Your task to perform on an android device: clear all cookies in the chrome app Image 0: 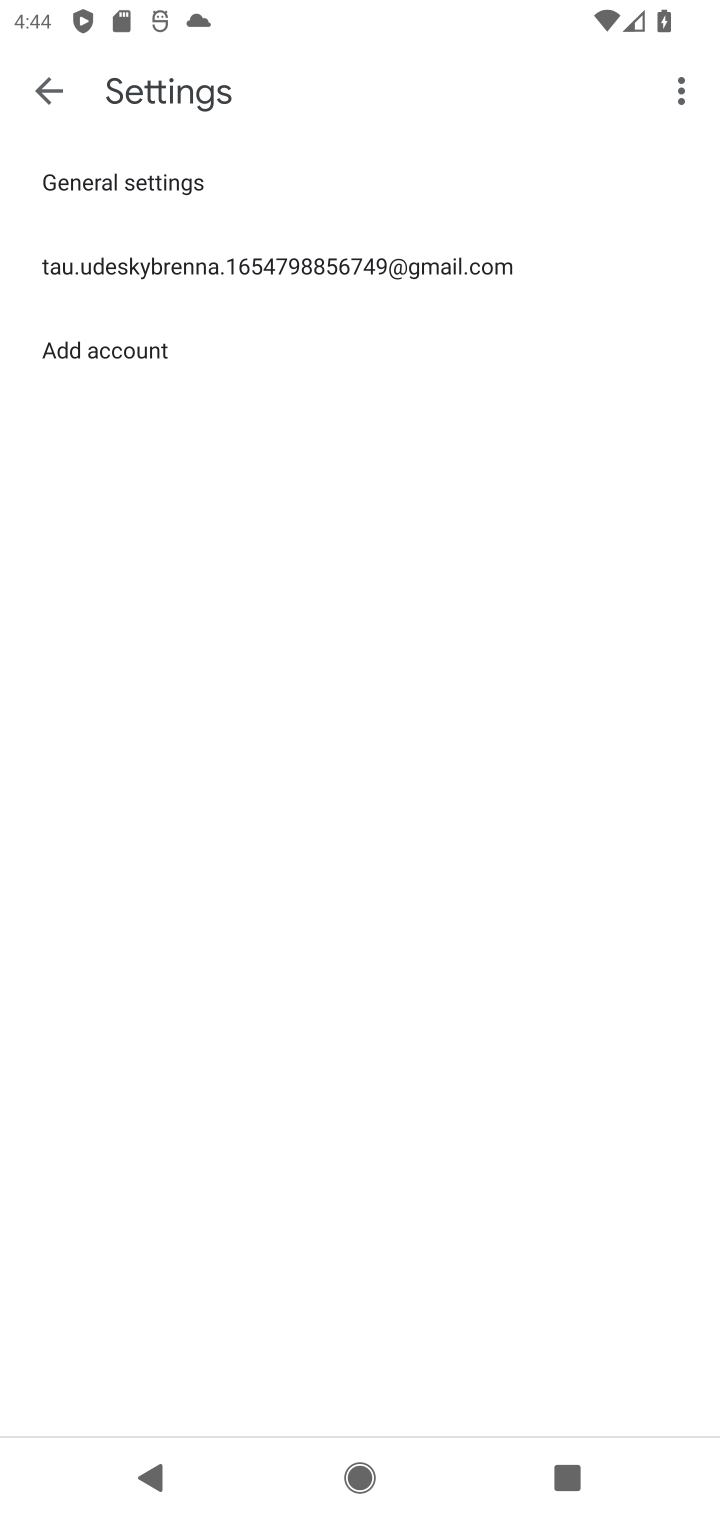
Step 0: press home button
Your task to perform on an android device: clear all cookies in the chrome app Image 1: 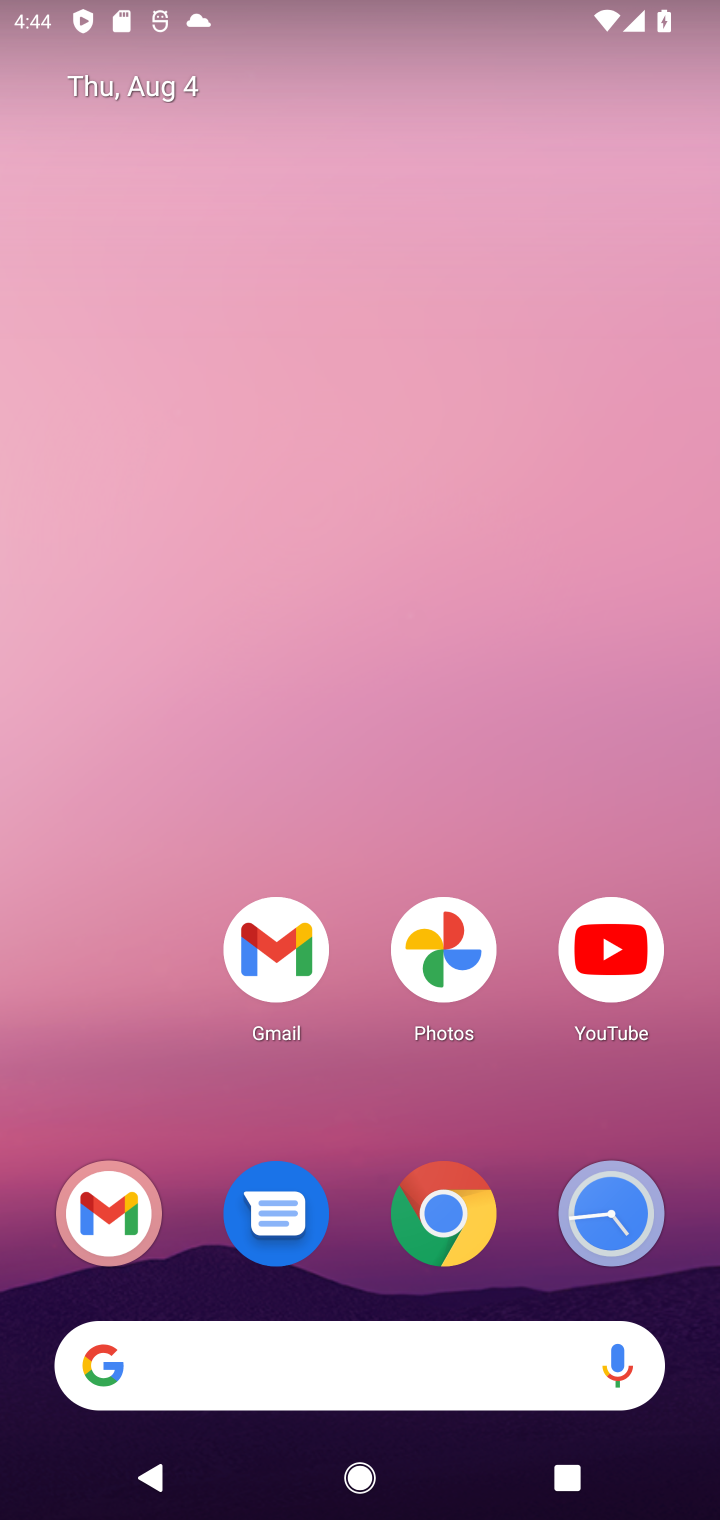
Step 1: drag from (162, 1086) to (129, 279)
Your task to perform on an android device: clear all cookies in the chrome app Image 2: 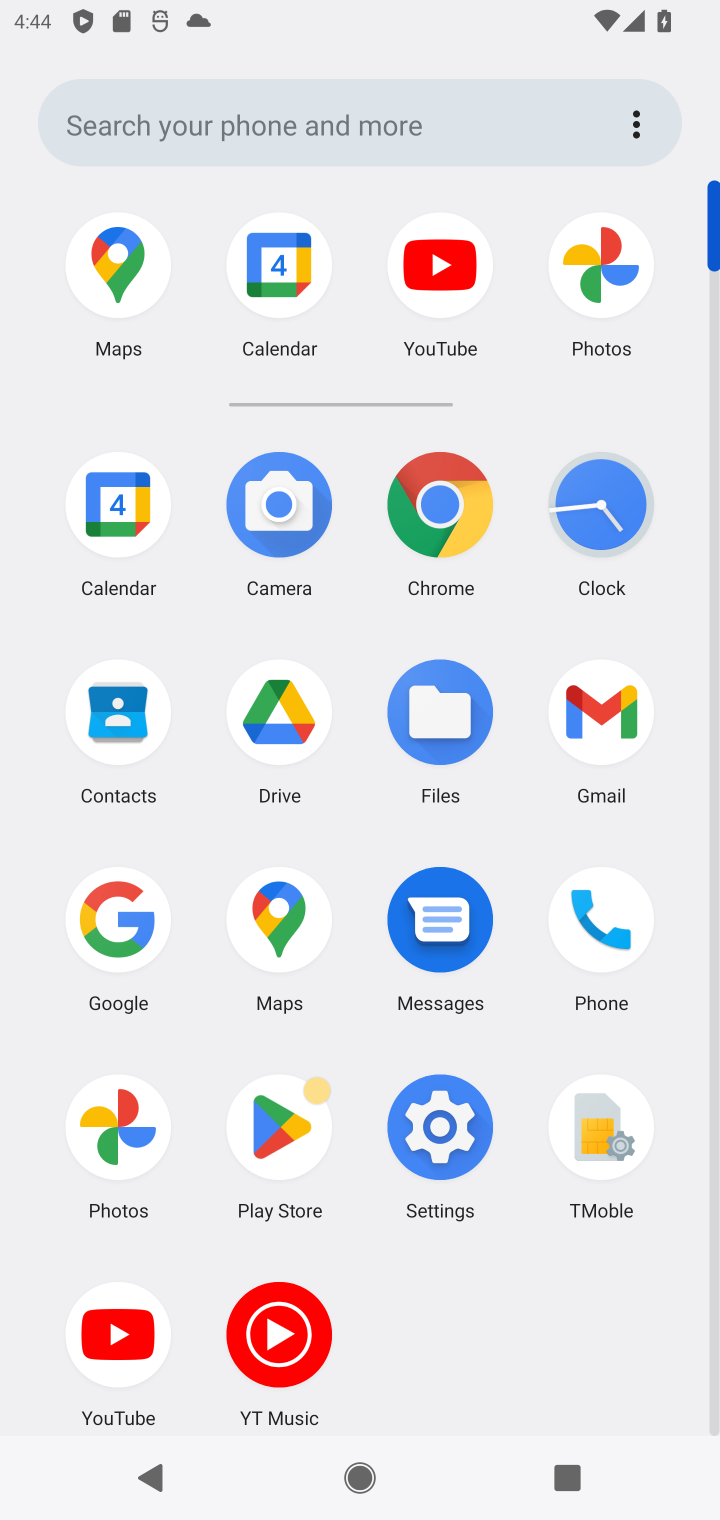
Step 2: click (444, 520)
Your task to perform on an android device: clear all cookies in the chrome app Image 3: 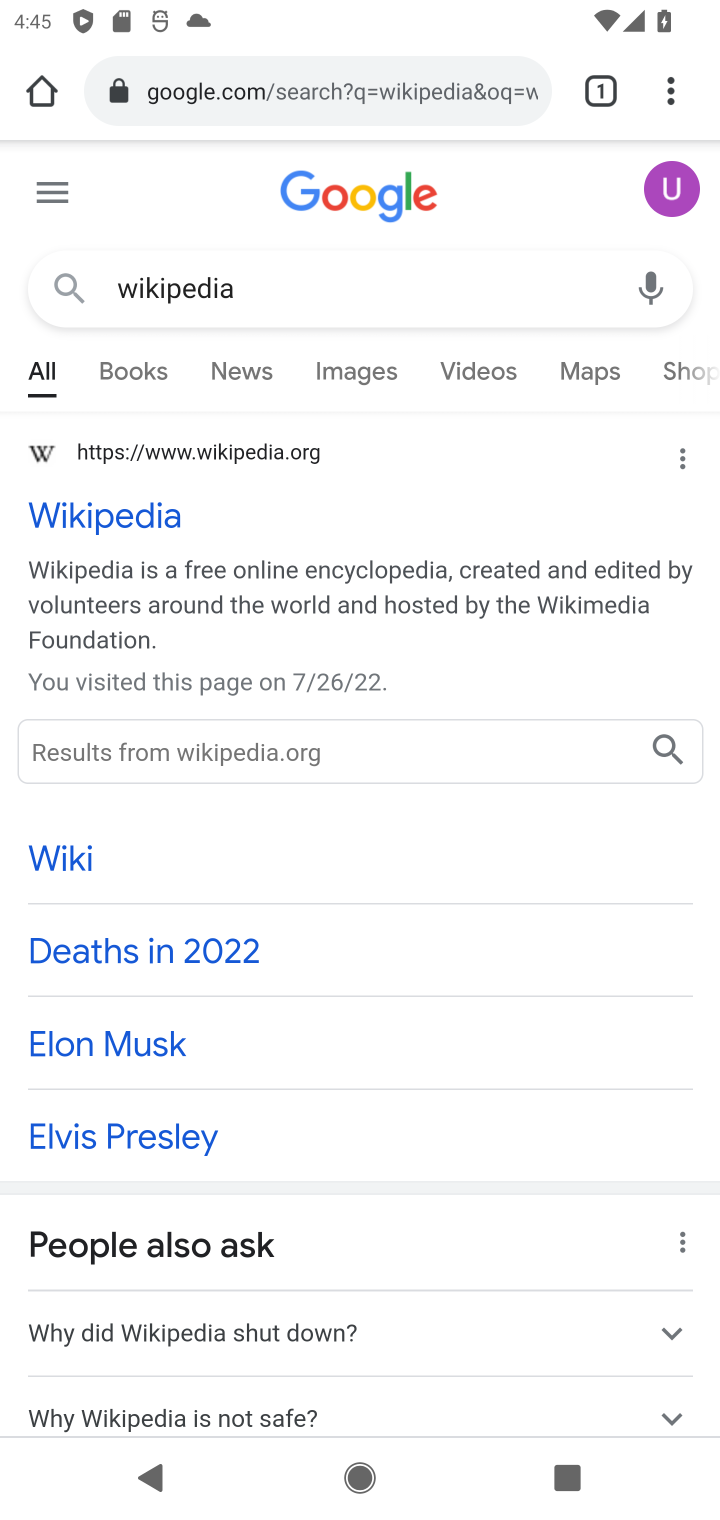
Step 3: click (672, 96)
Your task to perform on an android device: clear all cookies in the chrome app Image 4: 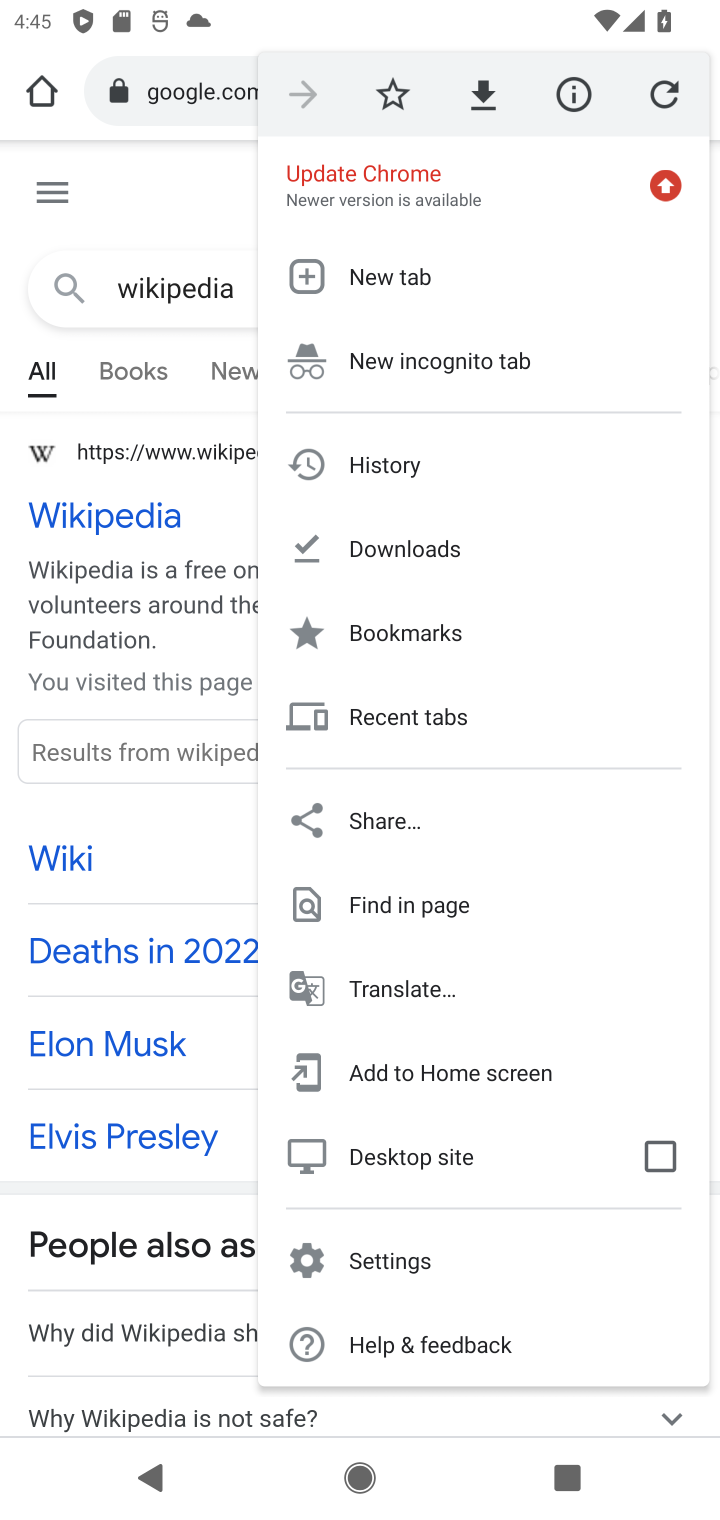
Step 4: click (439, 1264)
Your task to perform on an android device: clear all cookies in the chrome app Image 5: 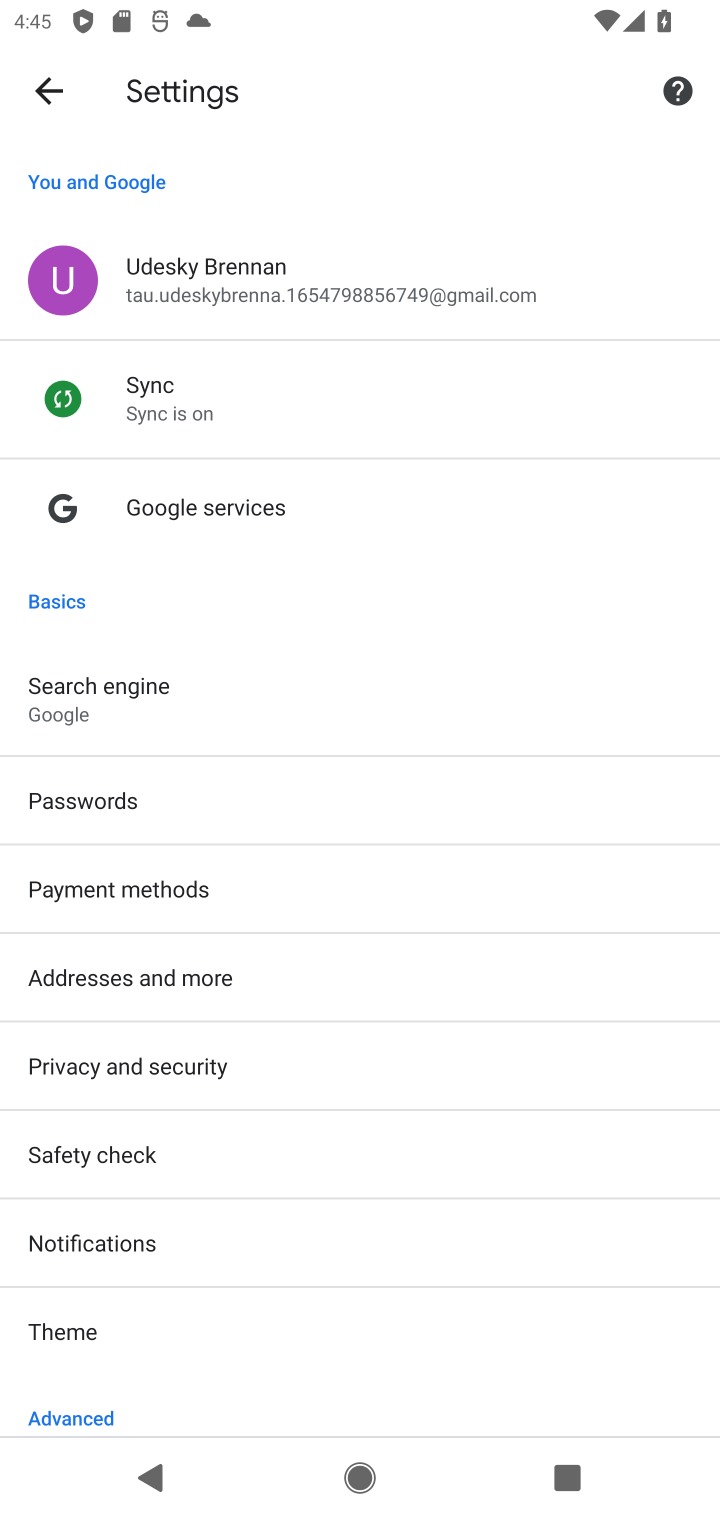
Step 5: drag from (417, 1143) to (460, 779)
Your task to perform on an android device: clear all cookies in the chrome app Image 6: 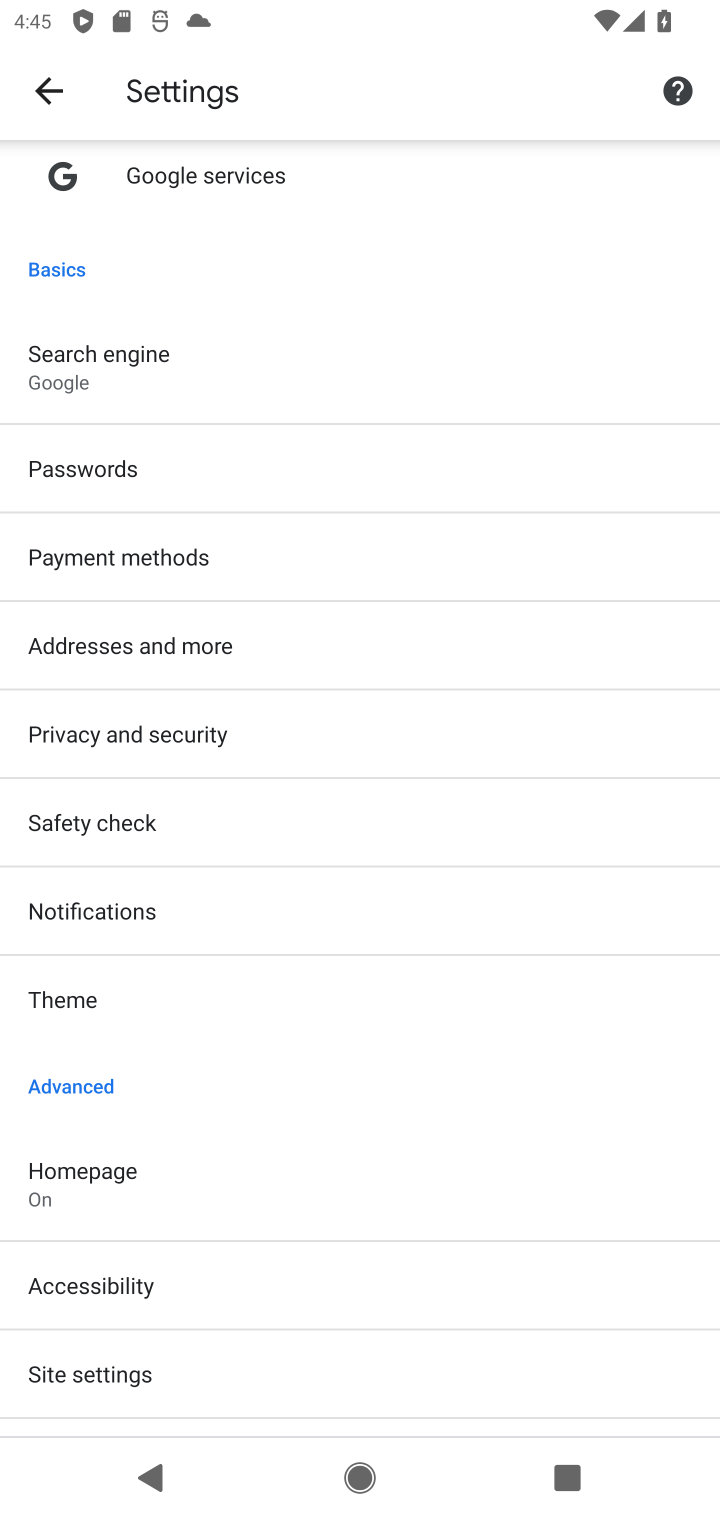
Step 6: drag from (507, 1151) to (516, 750)
Your task to perform on an android device: clear all cookies in the chrome app Image 7: 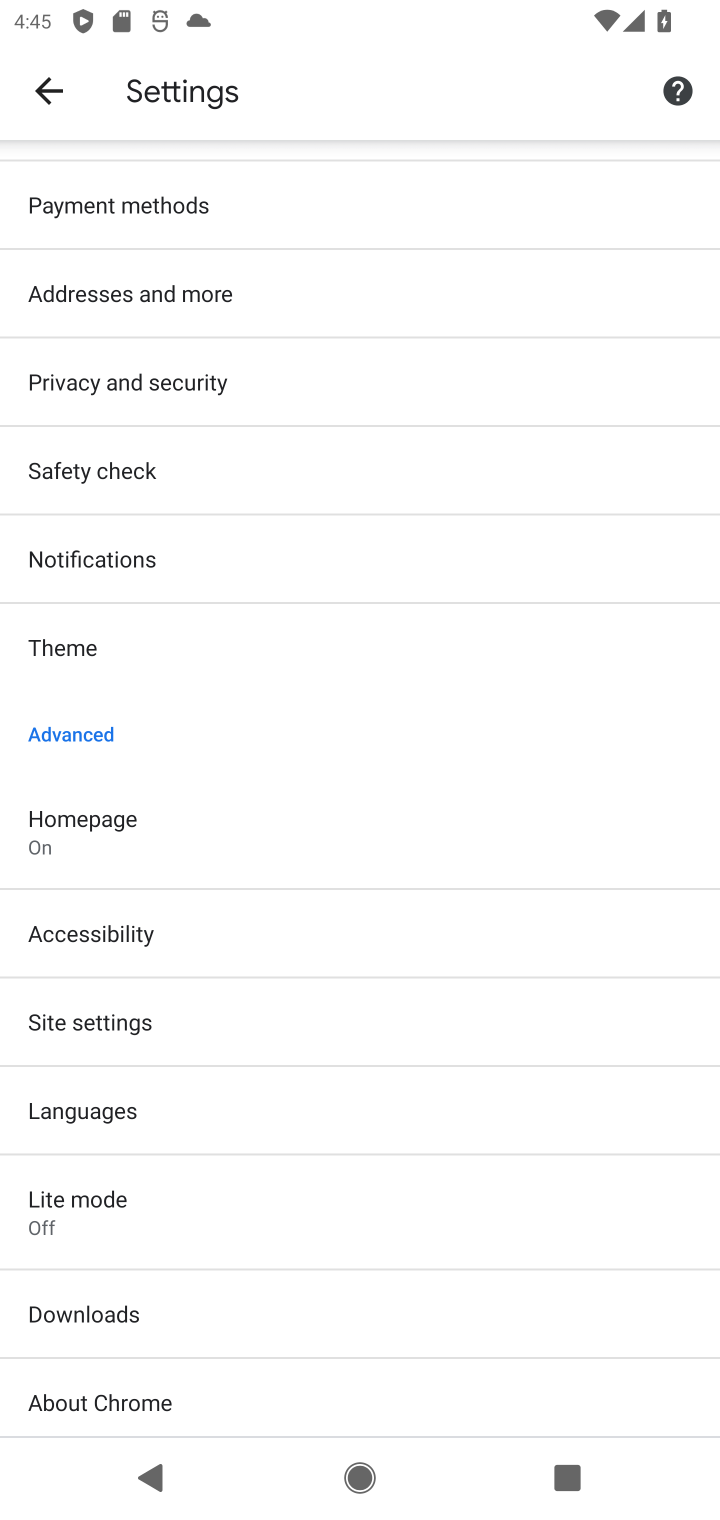
Step 7: drag from (544, 979) to (558, 671)
Your task to perform on an android device: clear all cookies in the chrome app Image 8: 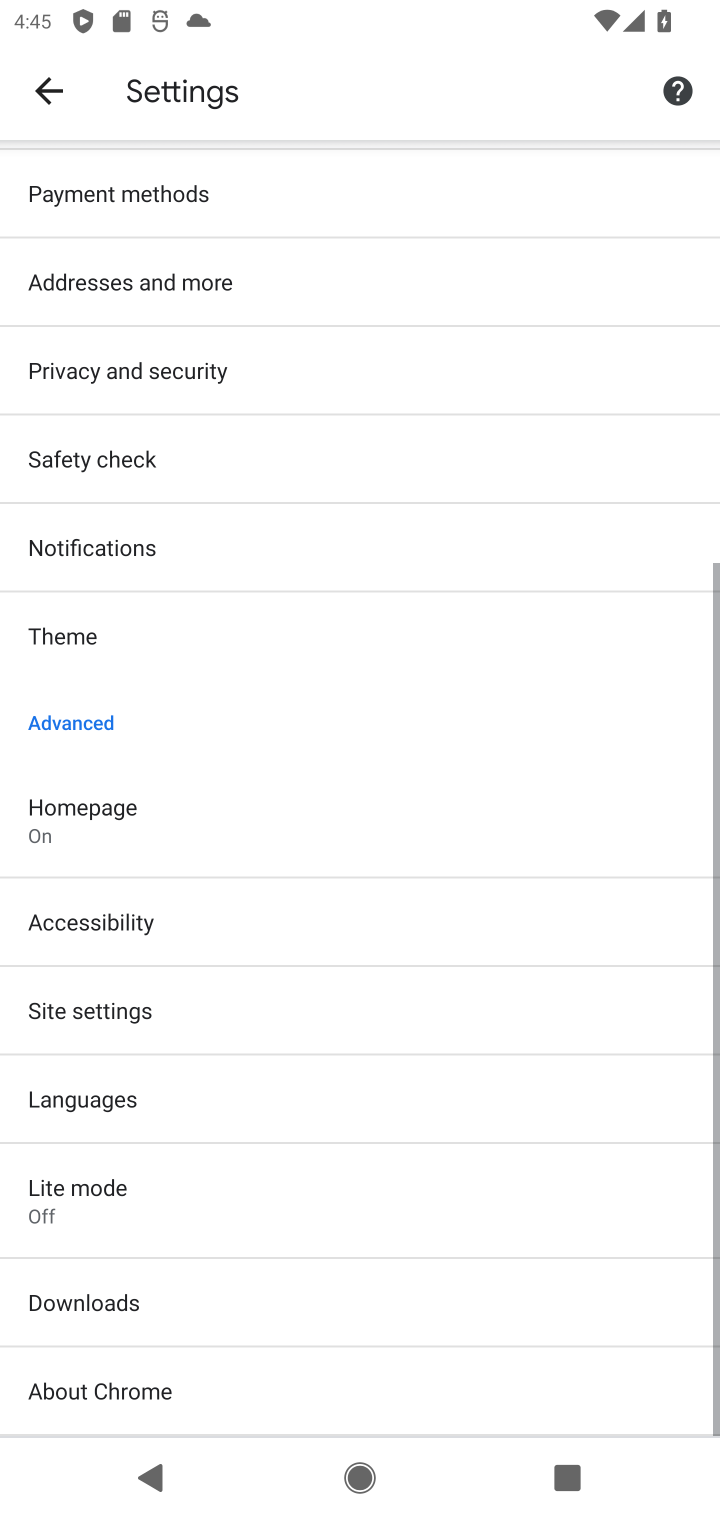
Step 8: drag from (528, 692) to (534, 898)
Your task to perform on an android device: clear all cookies in the chrome app Image 9: 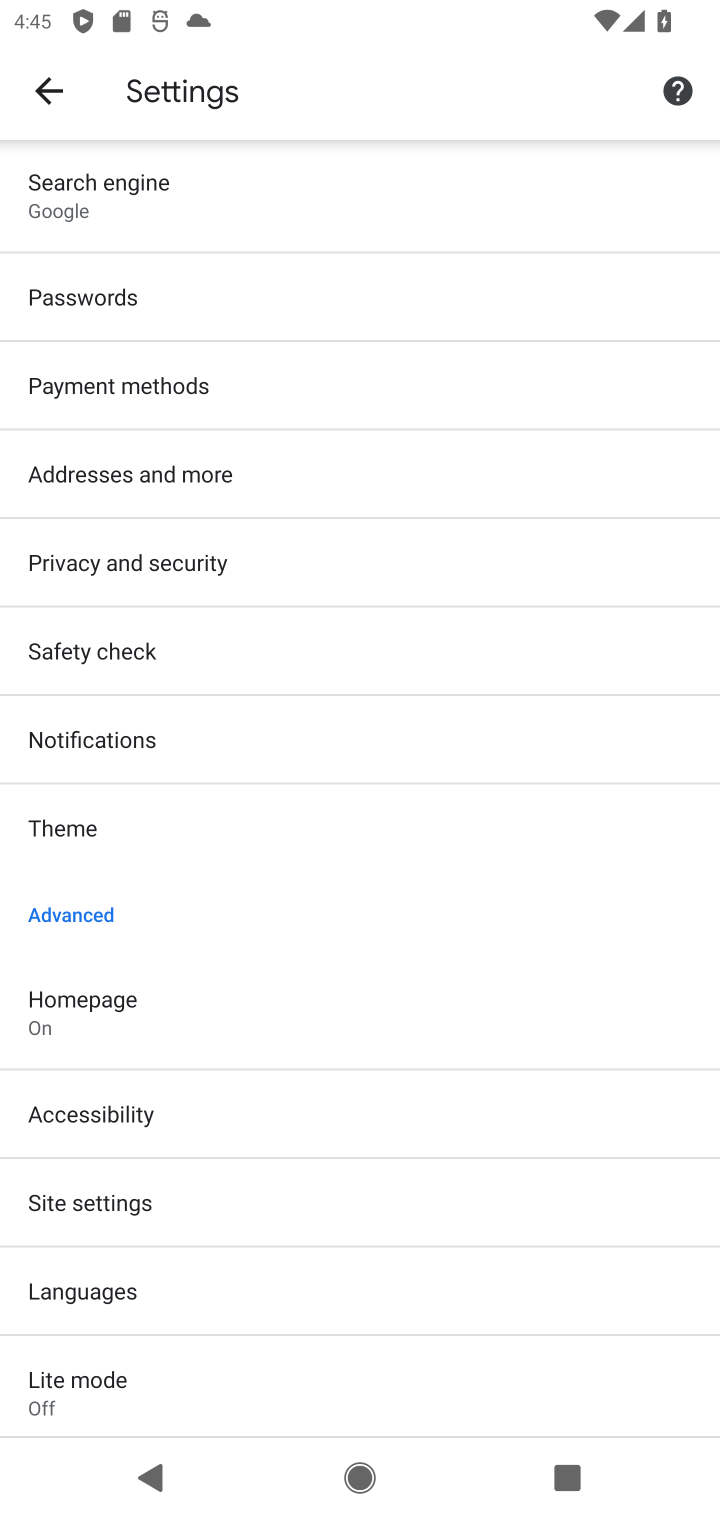
Step 9: drag from (477, 398) to (446, 889)
Your task to perform on an android device: clear all cookies in the chrome app Image 10: 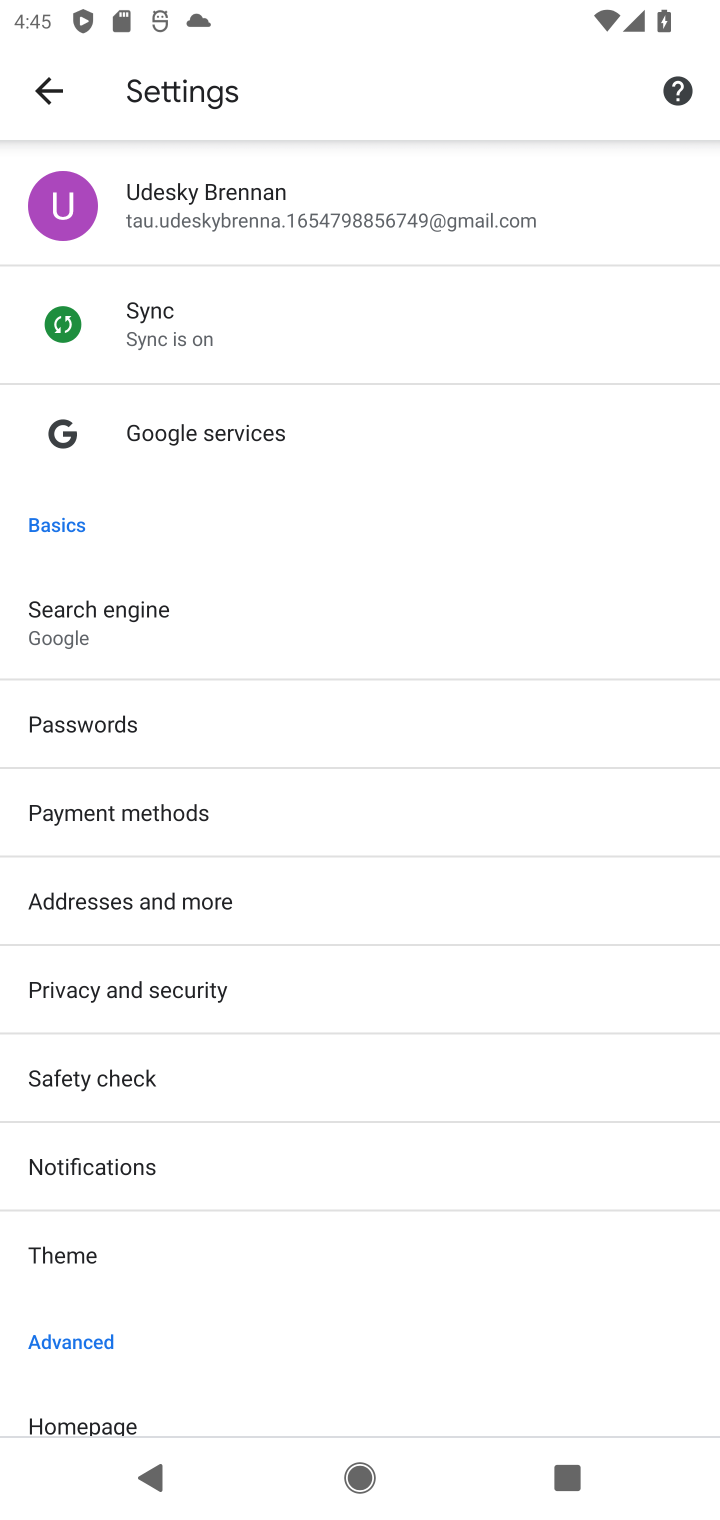
Step 10: click (335, 984)
Your task to perform on an android device: clear all cookies in the chrome app Image 11: 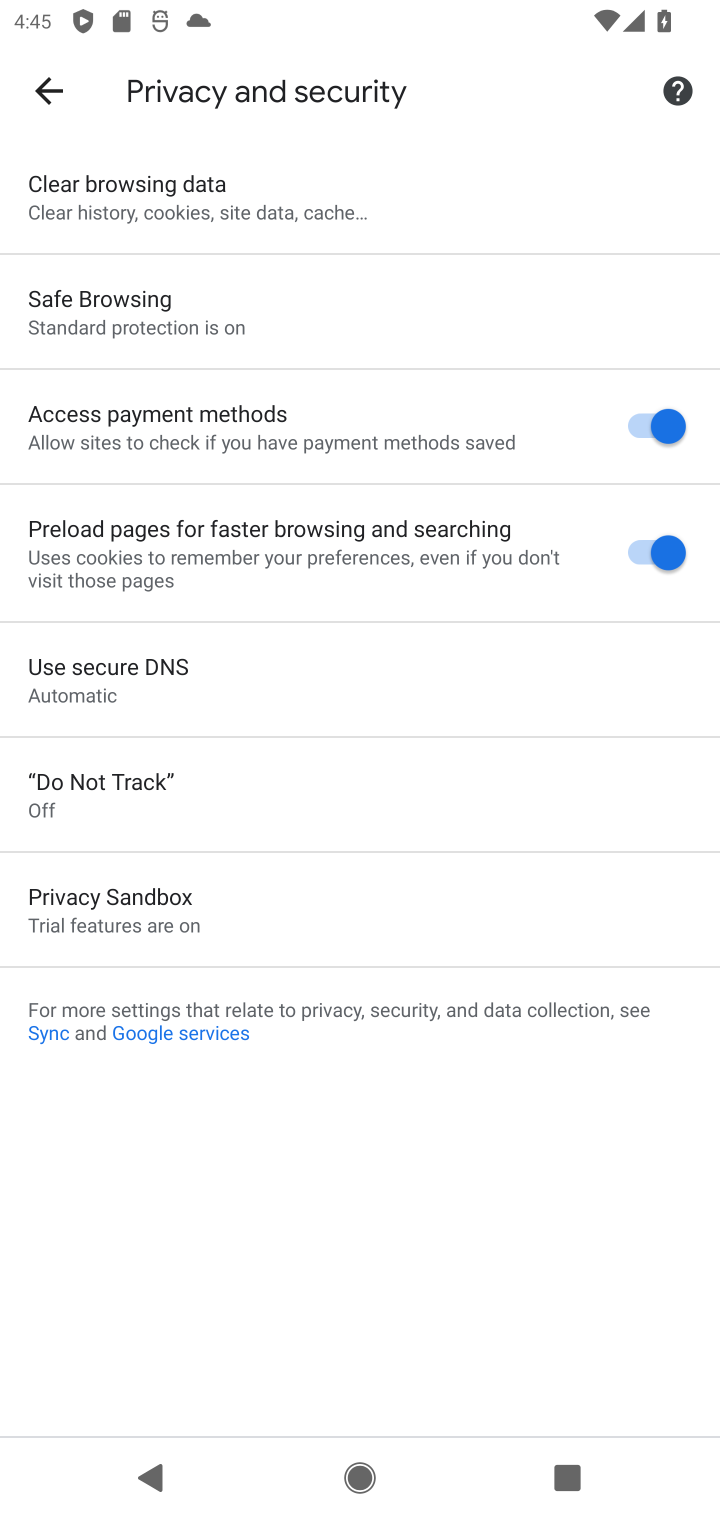
Step 11: click (380, 187)
Your task to perform on an android device: clear all cookies in the chrome app Image 12: 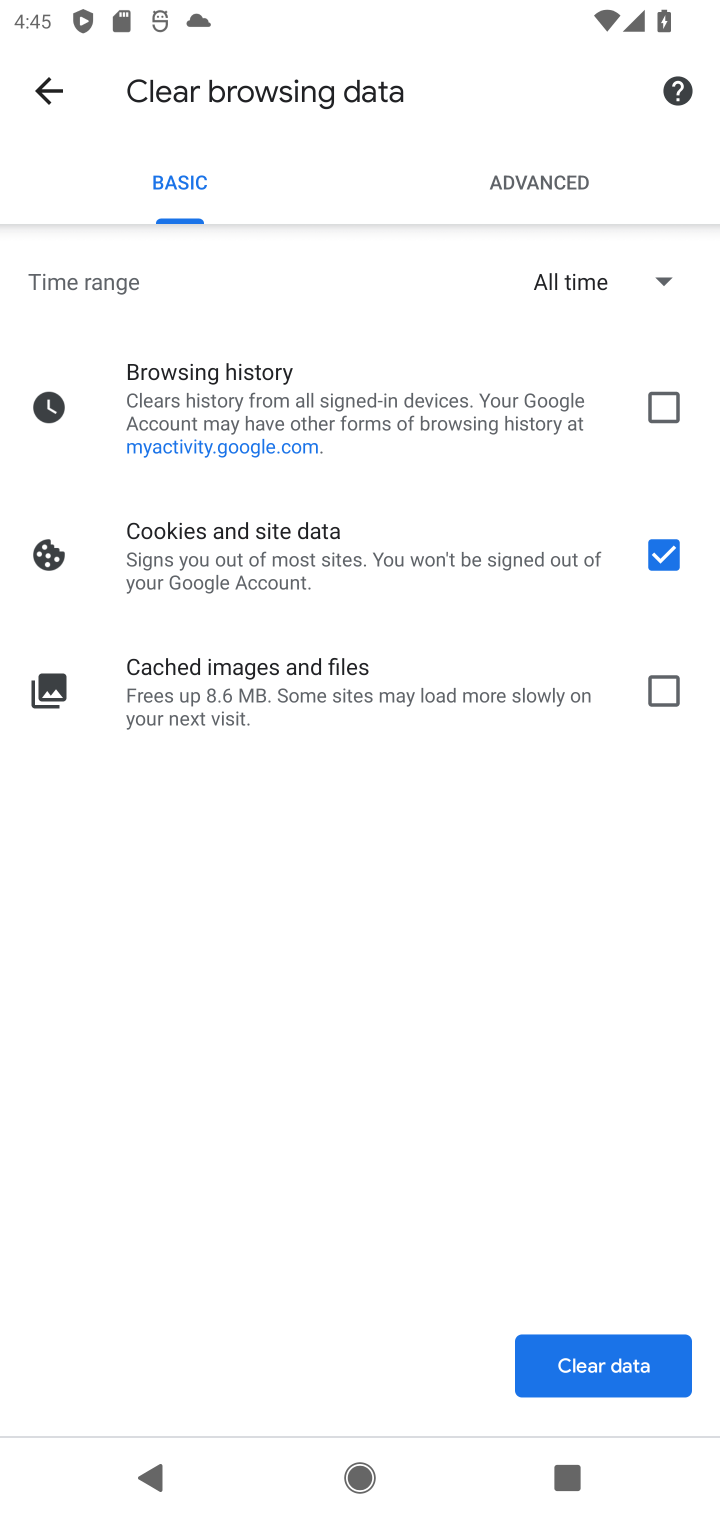
Step 12: click (668, 689)
Your task to perform on an android device: clear all cookies in the chrome app Image 13: 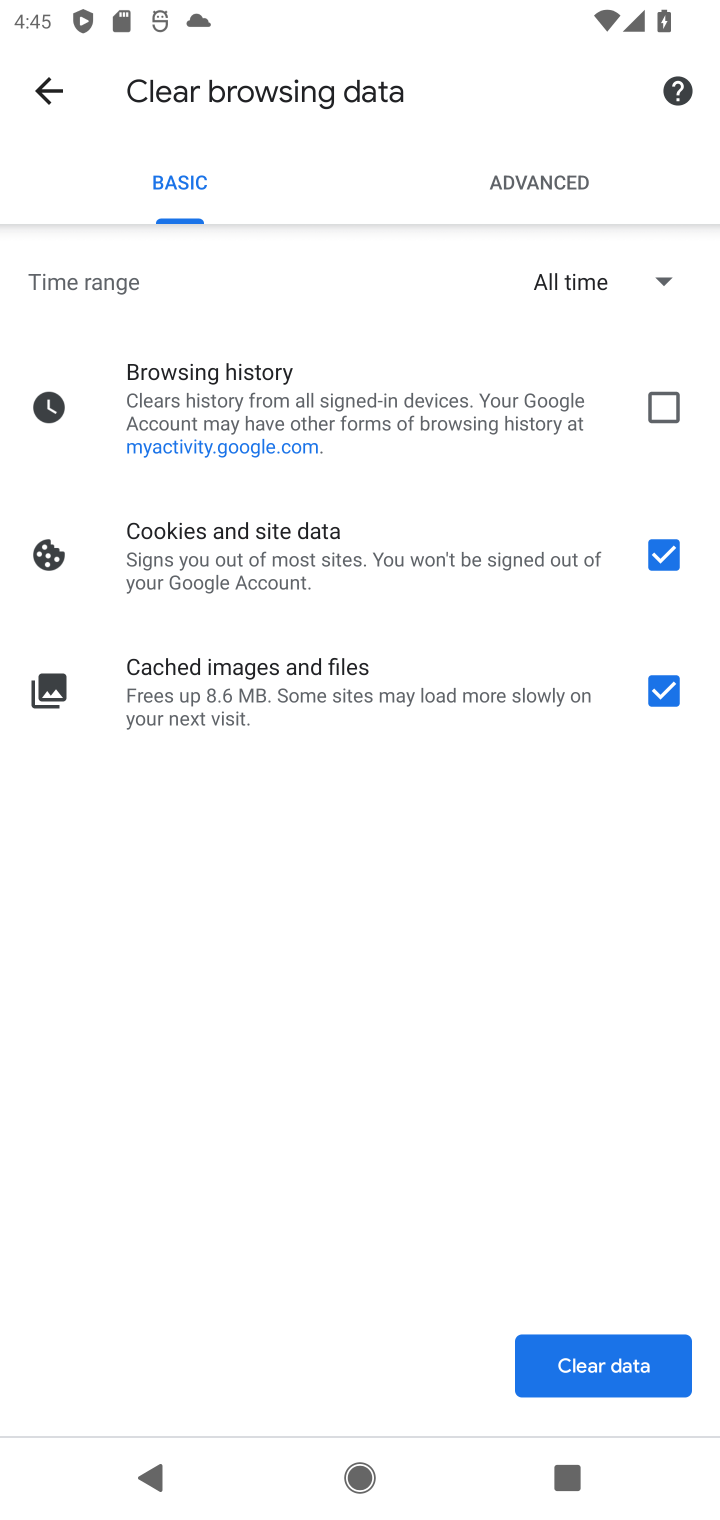
Step 13: click (649, 418)
Your task to perform on an android device: clear all cookies in the chrome app Image 14: 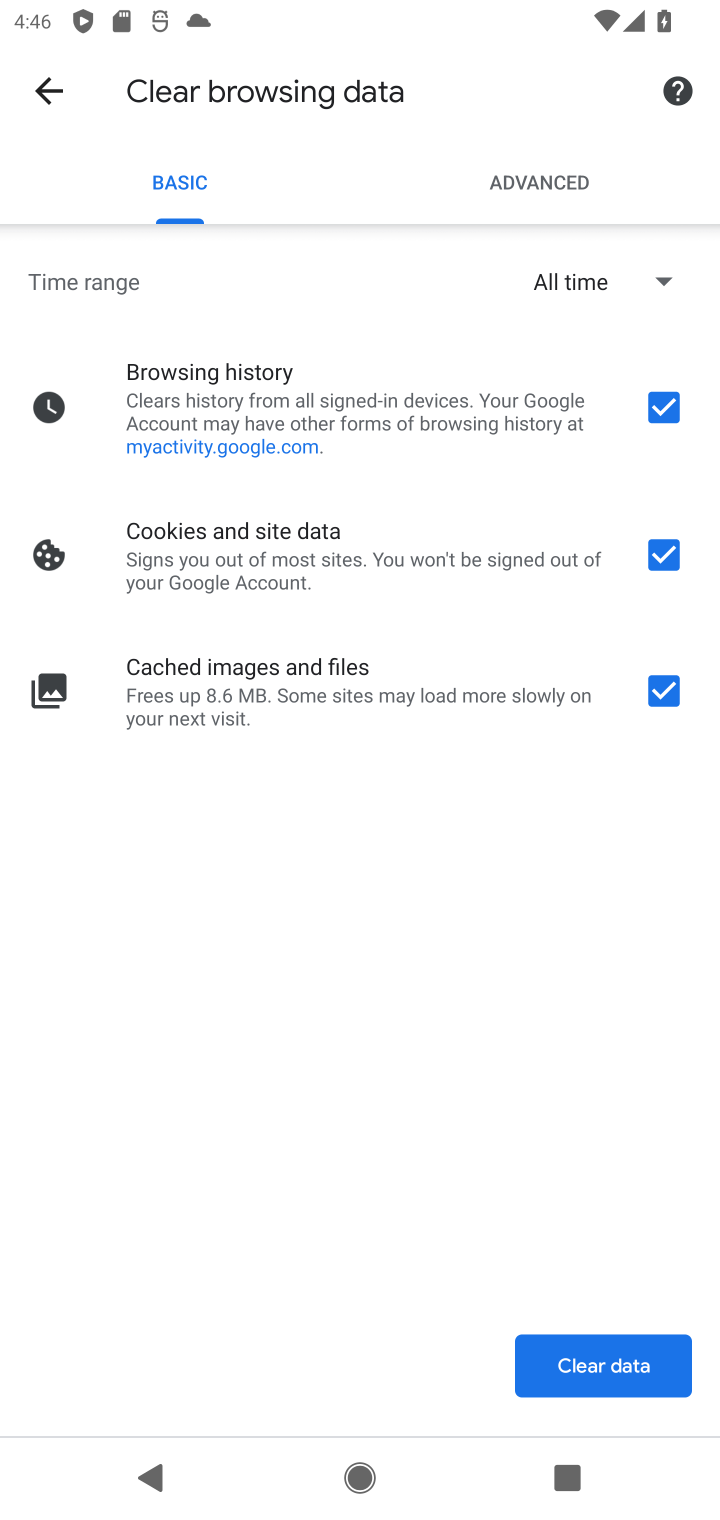
Step 14: click (606, 1379)
Your task to perform on an android device: clear all cookies in the chrome app Image 15: 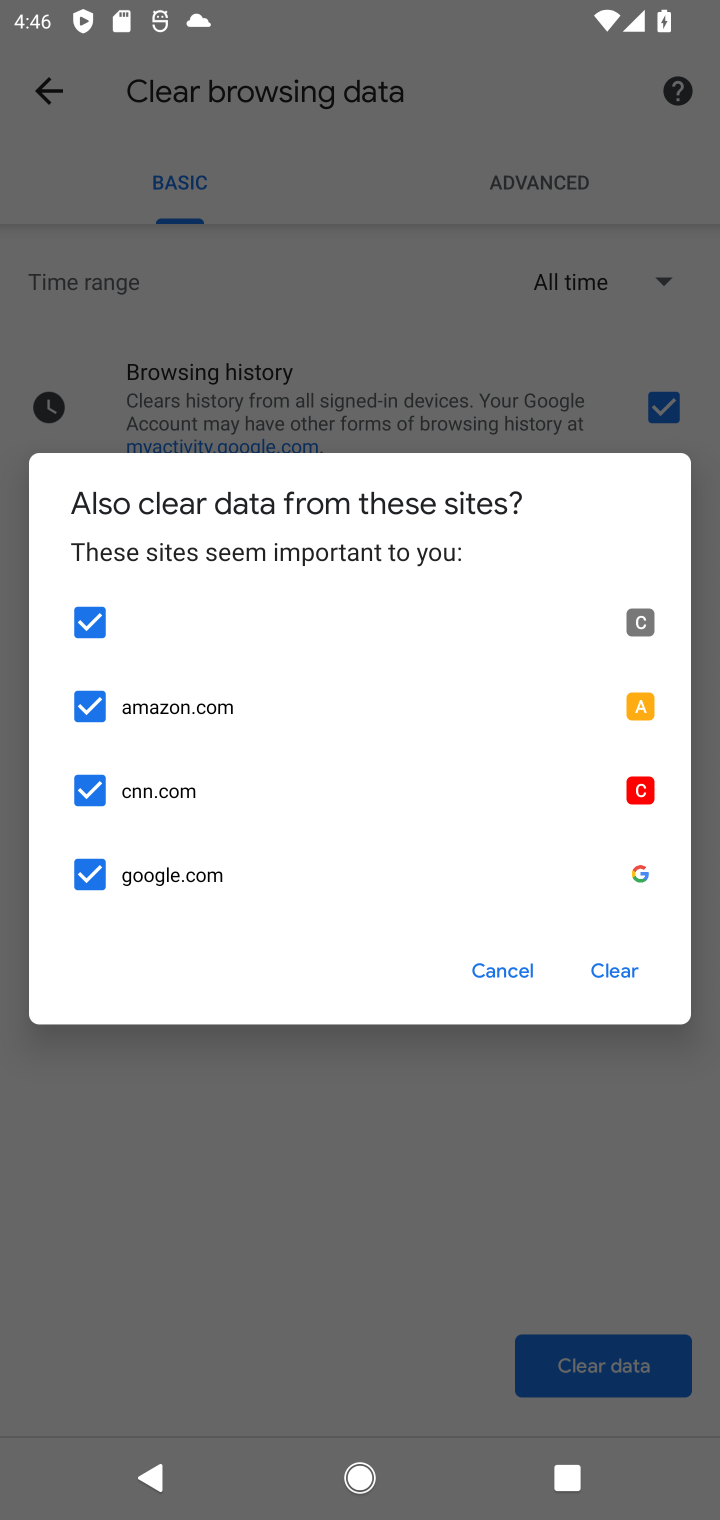
Step 15: click (600, 975)
Your task to perform on an android device: clear all cookies in the chrome app Image 16: 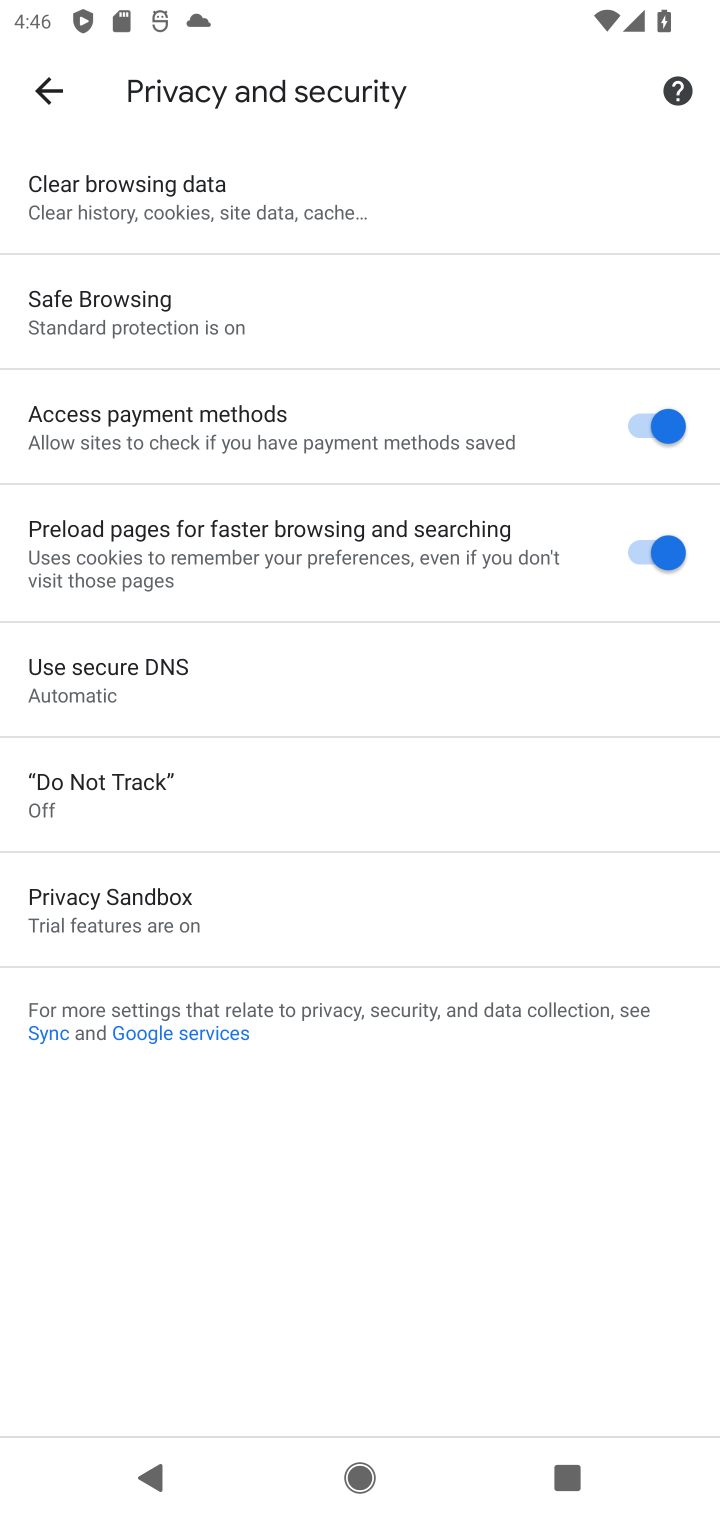
Step 16: task complete